Your task to perform on an android device: change notifications settings Image 0: 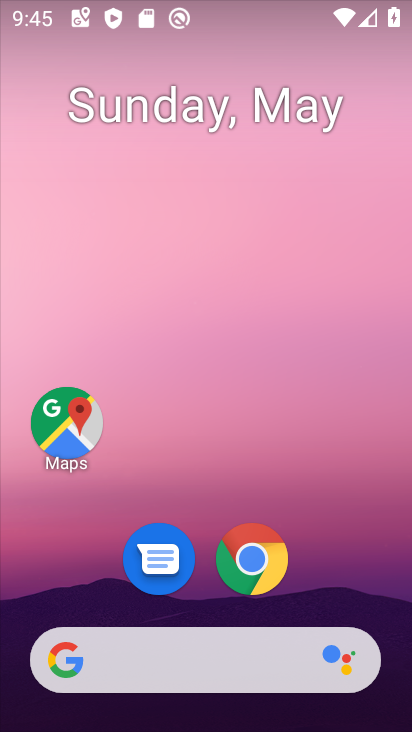
Step 0: drag from (314, 441) to (302, 196)
Your task to perform on an android device: change notifications settings Image 1: 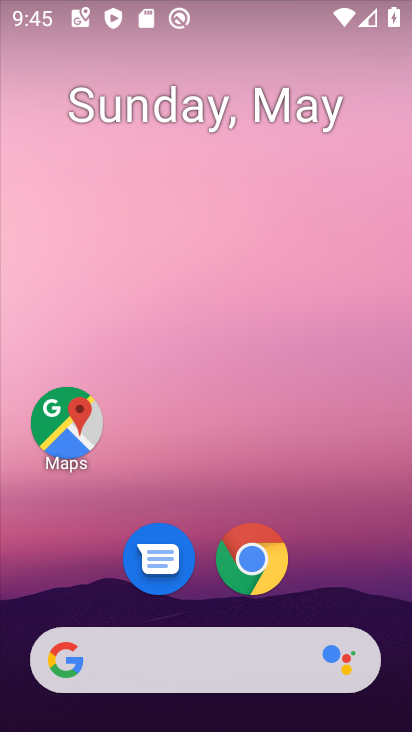
Step 1: drag from (331, 567) to (337, 149)
Your task to perform on an android device: change notifications settings Image 2: 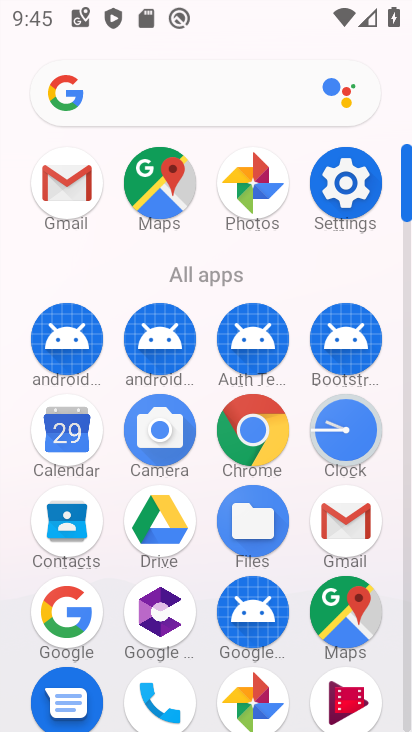
Step 2: click (352, 177)
Your task to perform on an android device: change notifications settings Image 3: 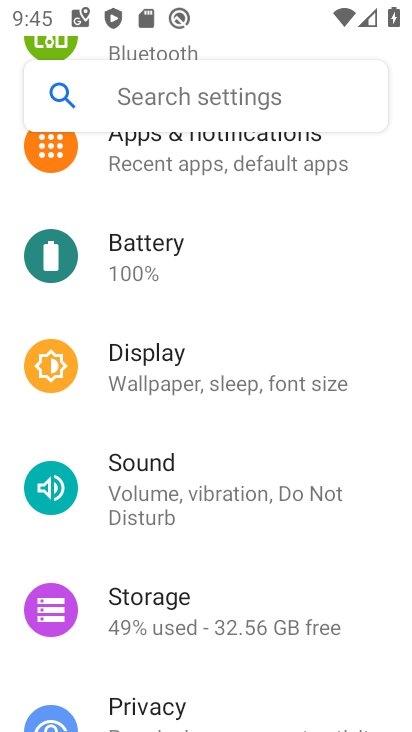
Step 3: click (220, 155)
Your task to perform on an android device: change notifications settings Image 4: 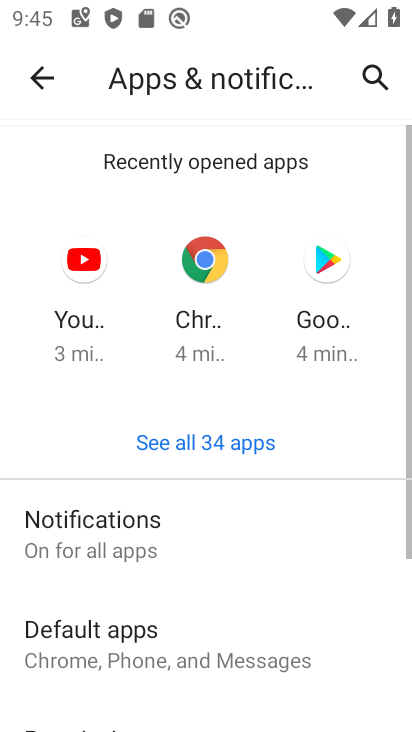
Step 4: click (188, 530)
Your task to perform on an android device: change notifications settings Image 5: 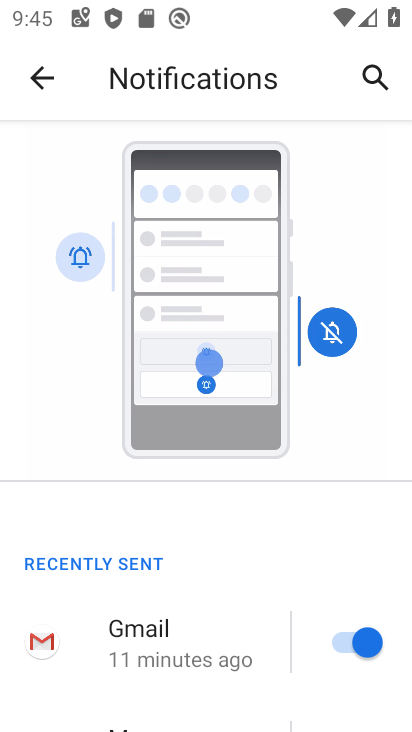
Step 5: task complete